Your task to perform on an android device: Show me recent news Image 0: 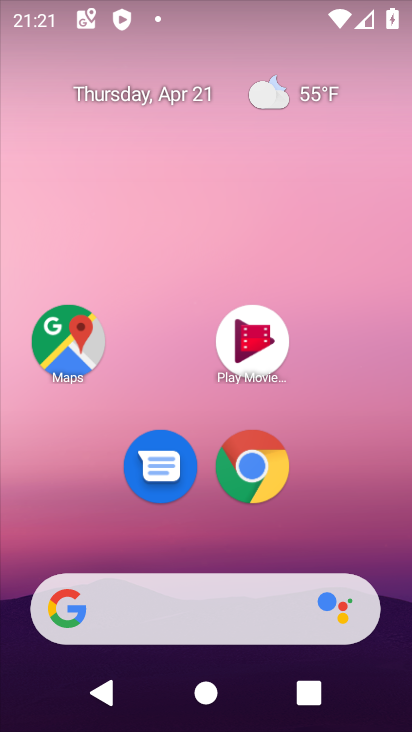
Step 0: drag from (79, 511) to (374, 493)
Your task to perform on an android device: Show me recent news Image 1: 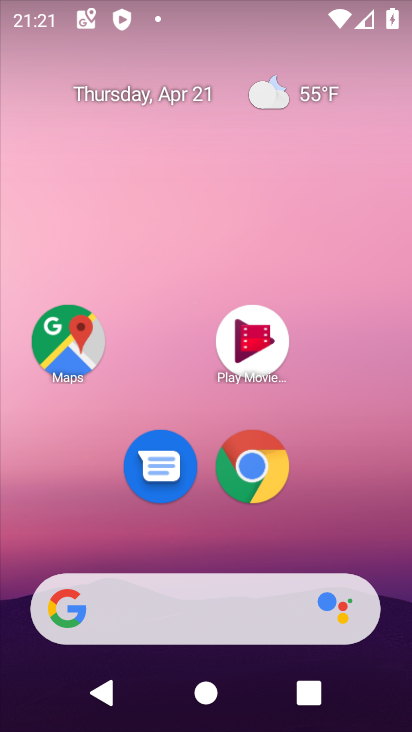
Step 1: task complete